Your task to perform on an android device: toggle airplane mode Image 0: 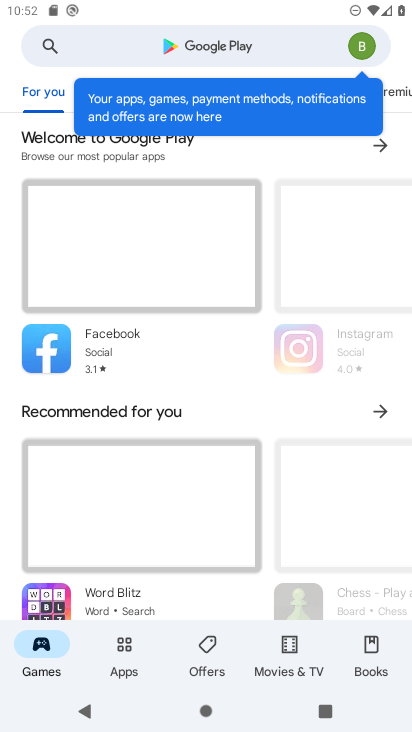
Step 0: press home button
Your task to perform on an android device: toggle airplane mode Image 1: 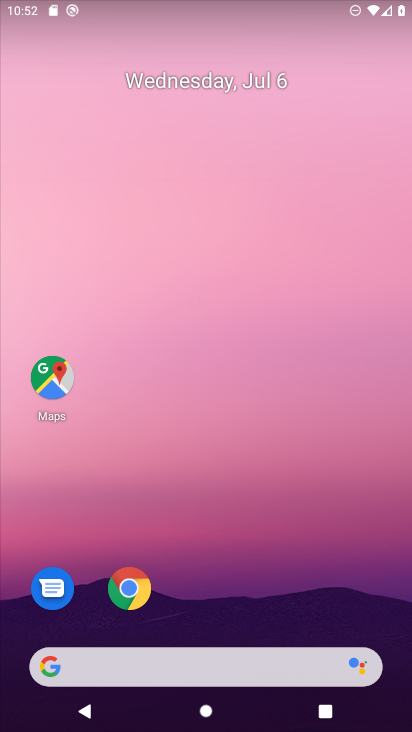
Step 1: drag from (268, 597) to (251, 164)
Your task to perform on an android device: toggle airplane mode Image 2: 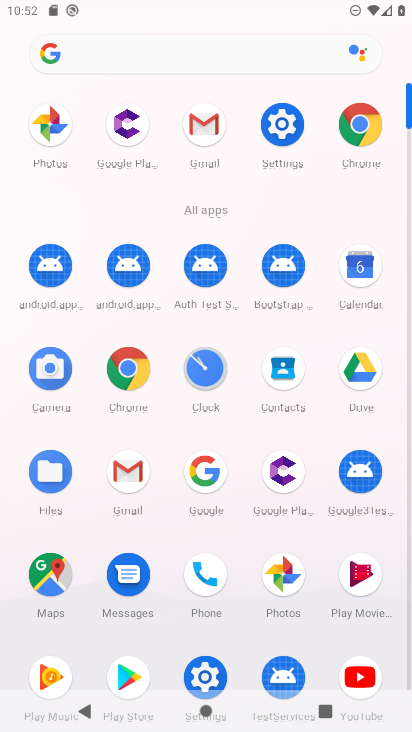
Step 2: click (288, 121)
Your task to perform on an android device: toggle airplane mode Image 3: 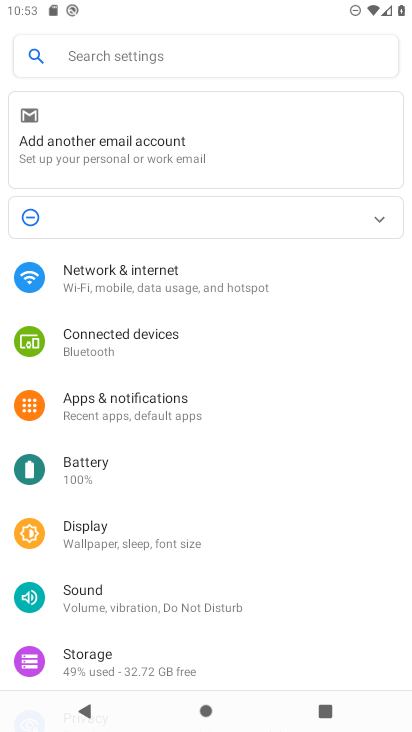
Step 3: click (262, 284)
Your task to perform on an android device: toggle airplane mode Image 4: 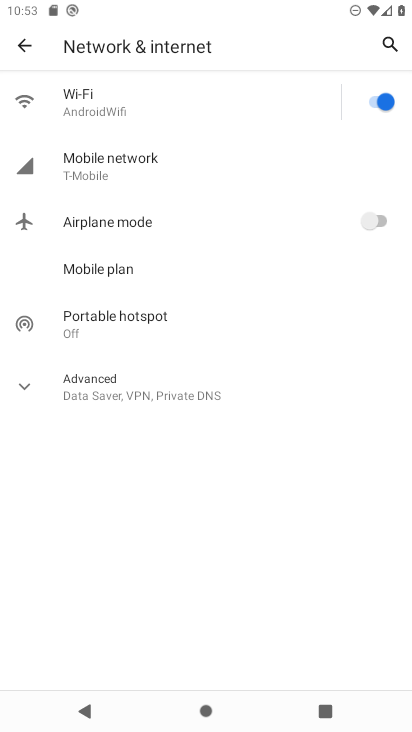
Step 4: click (384, 219)
Your task to perform on an android device: toggle airplane mode Image 5: 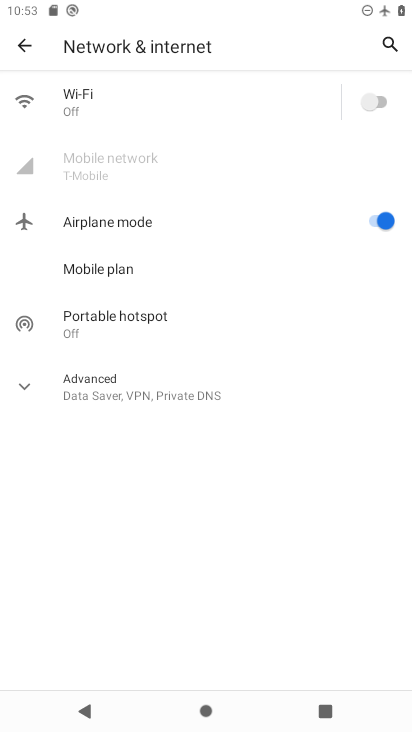
Step 5: task complete